Your task to perform on an android device: turn off airplane mode Image 0: 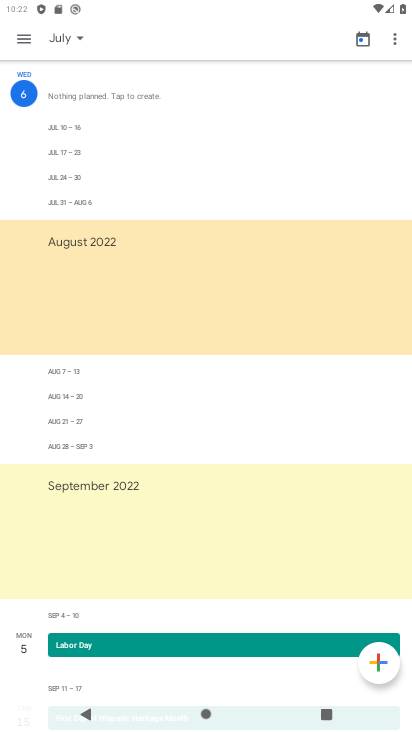
Step 0: press home button
Your task to perform on an android device: turn off airplane mode Image 1: 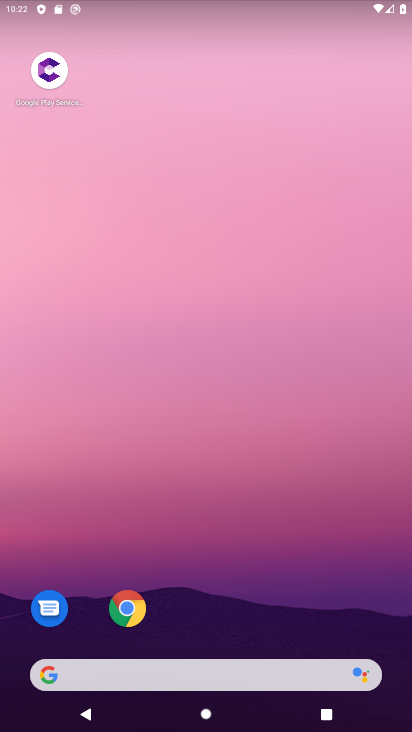
Step 1: task complete